Your task to perform on an android device: Show me popular games on the Play Store Image 0: 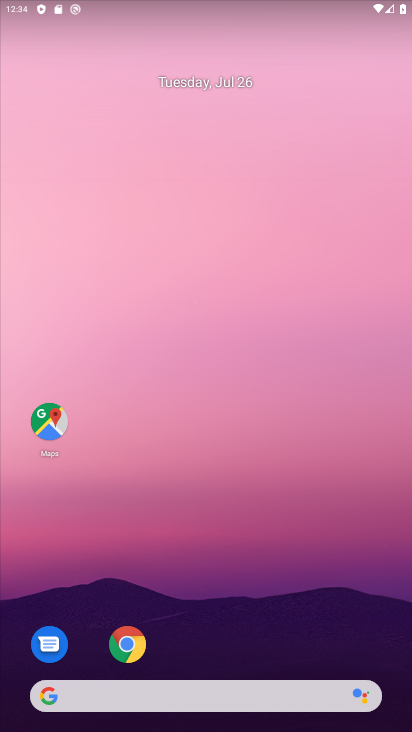
Step 0: drag from (176, 591) to (176, 145)
Your task to perform on an android device: Show me popular games on the Play Store Image 1: 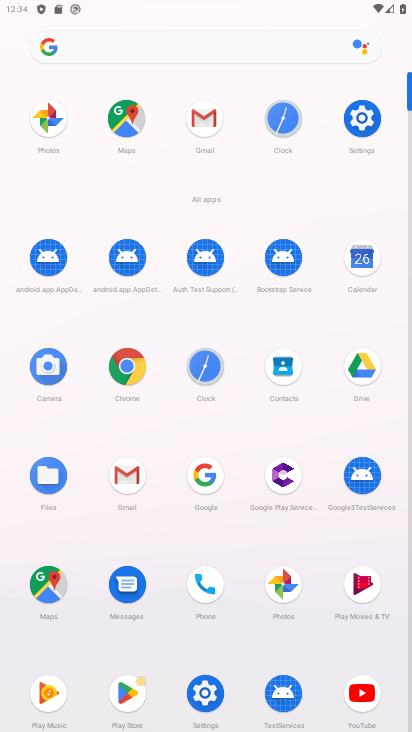
Step 1: click (129, 689)
Your task to perform on an android device: Show me popular games on the Play Store Image 2: 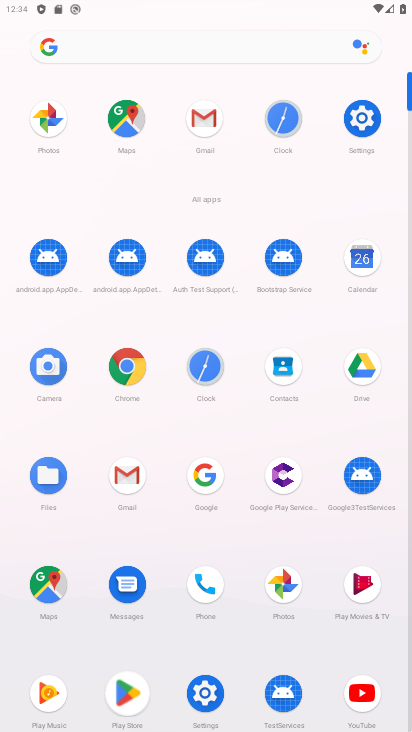
Step 2: click (129, 689)
Your task to perform on an android device: Show me popular games on the Play Store Image 3: 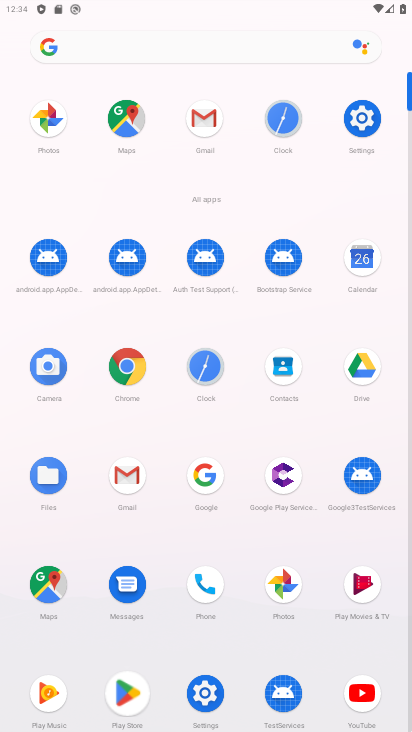
Step 3: click (129, 689)
Your task to perform on an android device: Show me popular games on the Play Store Image 4: 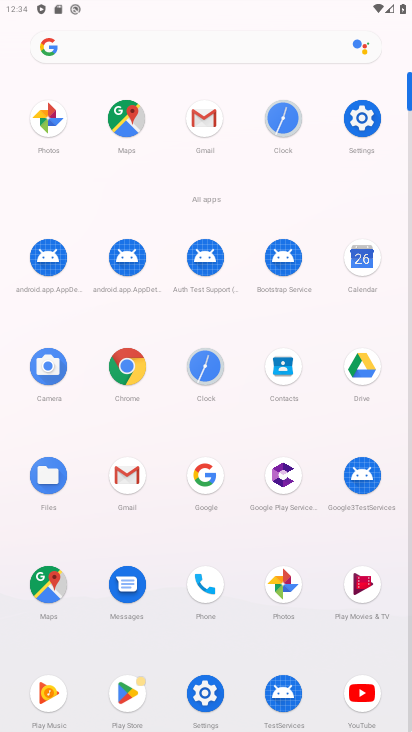
Step 4: click (125, 672)
Your task to perform on an android device: Show me popular games on the Play Store Image 5: 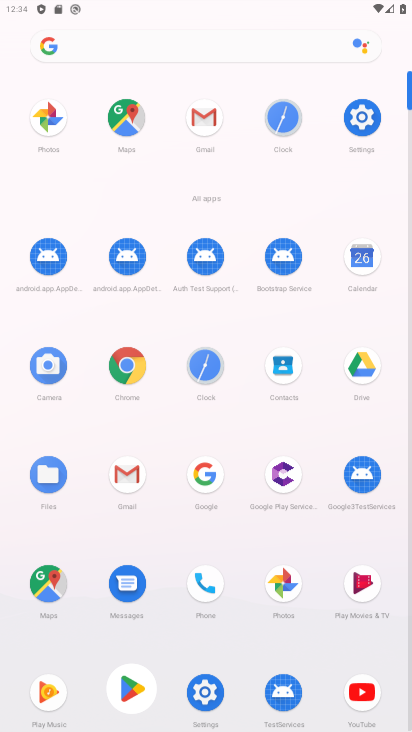
Step 5: click (127, 674)
Your task to perform on an android device: Show me popular games on the Play Store Image 6: 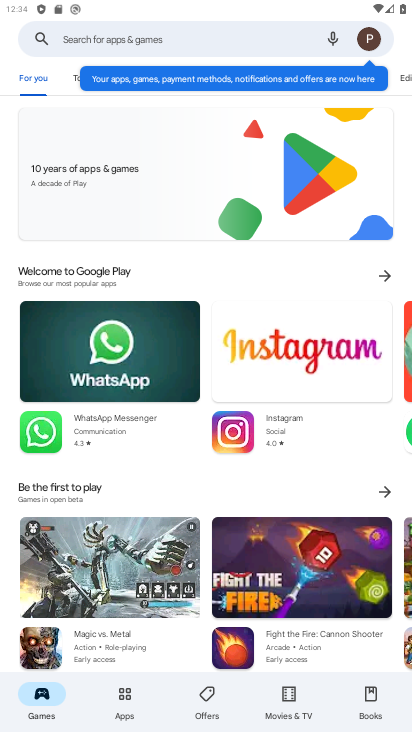
Step 6: click (169, 32)
Your task to perform on an android device: Show me popular games on the Play Store Image 7: 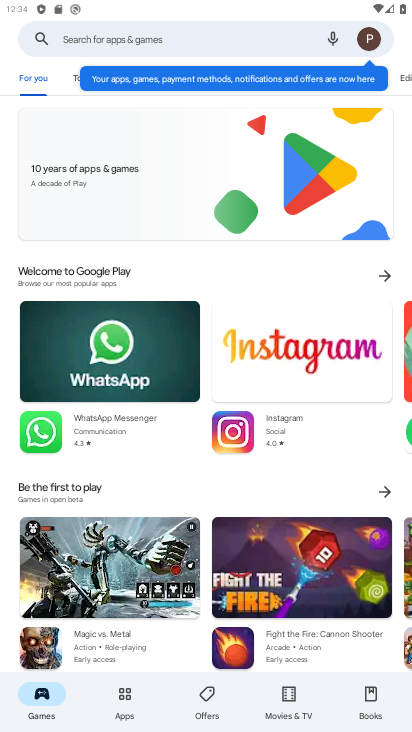
Step 7: click (169, 32)
Your task to perform on an android device: Show me popular games on the Play Store Image 8: 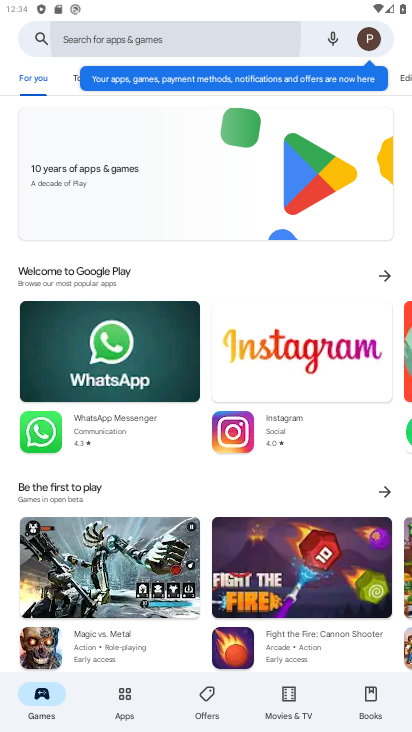
Step 8: click (170, 36)
Your task to perform on an android device: Show me popular games on the Play Store Image 9: 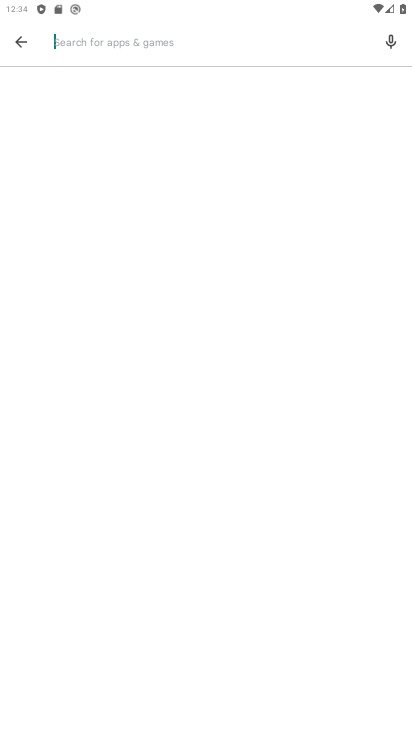
Step 9: click (175, 42)
Your task to perform on an android device: Show me popular games on the Play Store Image 10: 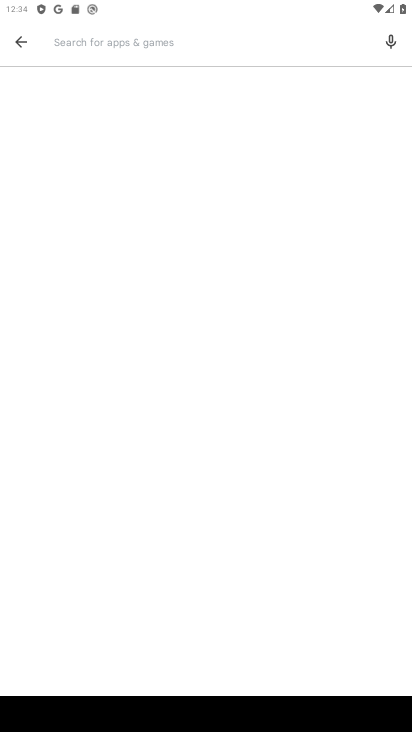
Step 10: type "games popular"
Your task to perform on an android device: Show me popular games on the Play Store Image 11: 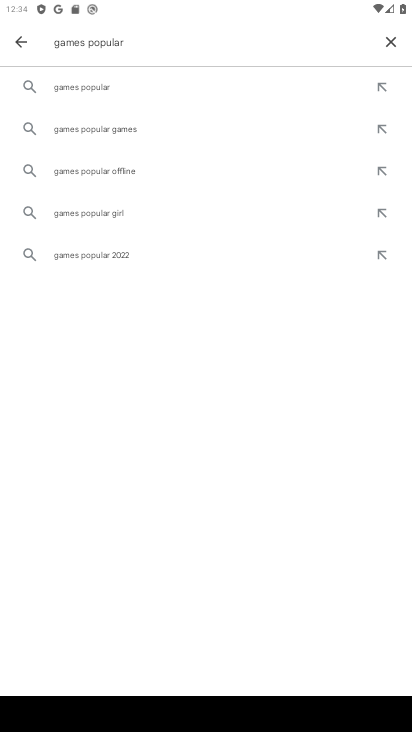
Step 11: click (82, 85)
Your task to perform on an android device: Show me popular games on the Play Store Image 12: 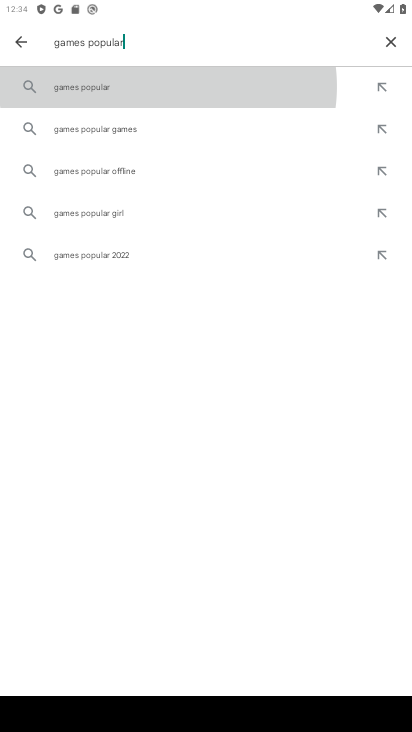
Step 12: click (82, 87)
Your task to perform on an android device: Show me popular games on the Play Store Image 13: 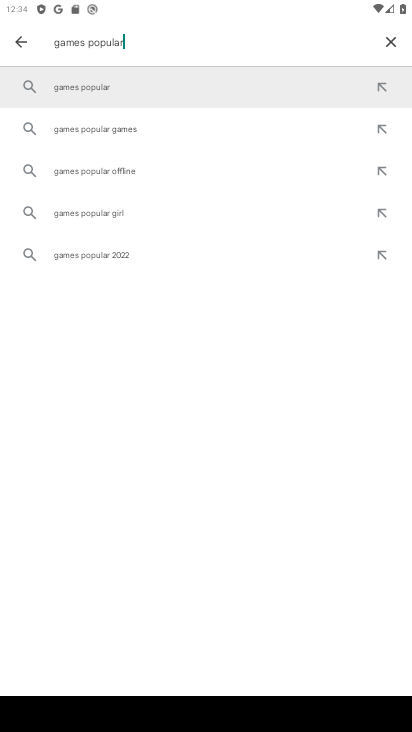
Step 13: click (86, 88)
Your task to perform on an android device: Show me popular games on the Play Store Image 14: 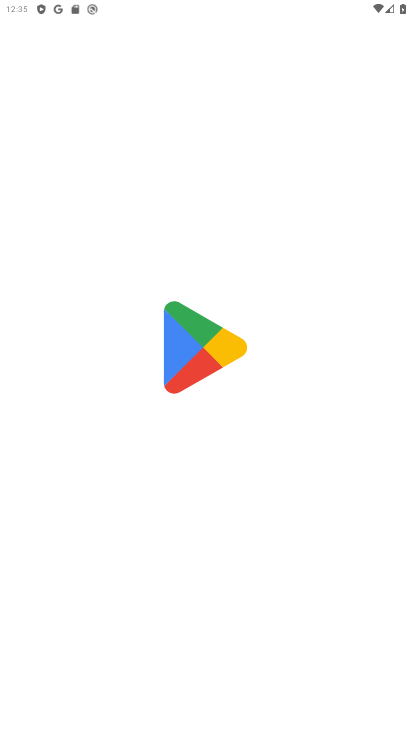
Step 14: task complete